Your task to perform on an android device: add a contact in the contacts app Image 0: 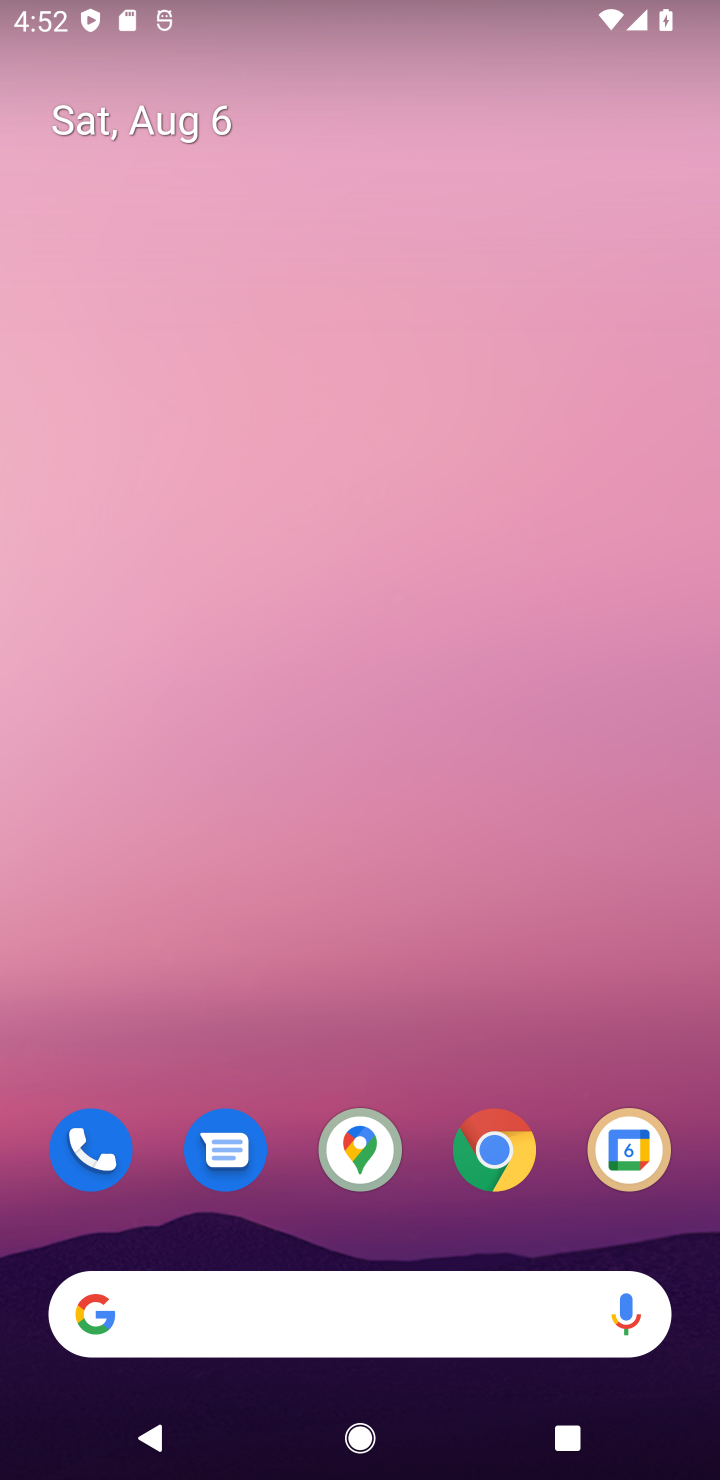
Step 0: drag from (438, 1036) to (370, 209)
Your task to perform on an android device: add a contact in the contacts app Image 1: 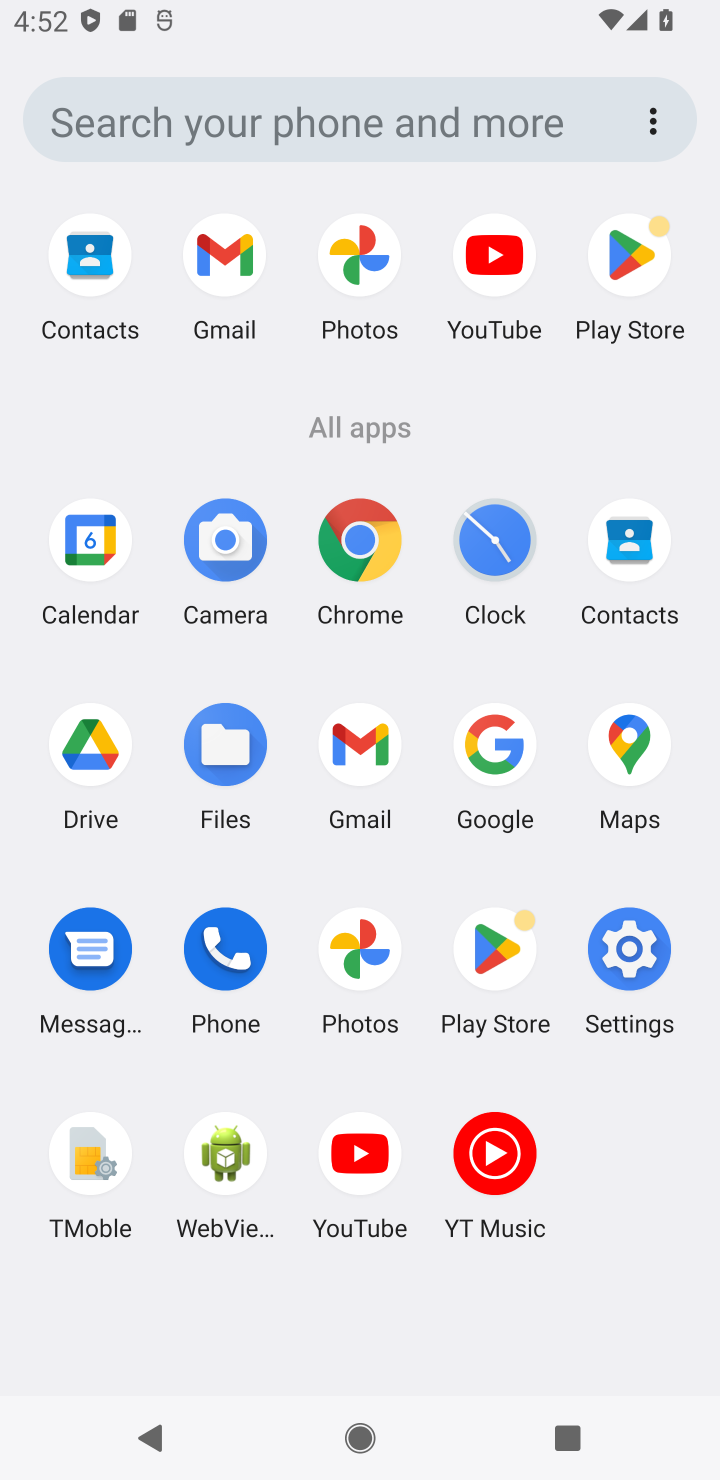
Step 1: click (610, 544)
Your task to perform on an android device: add a contact in the contacts app Image 2: 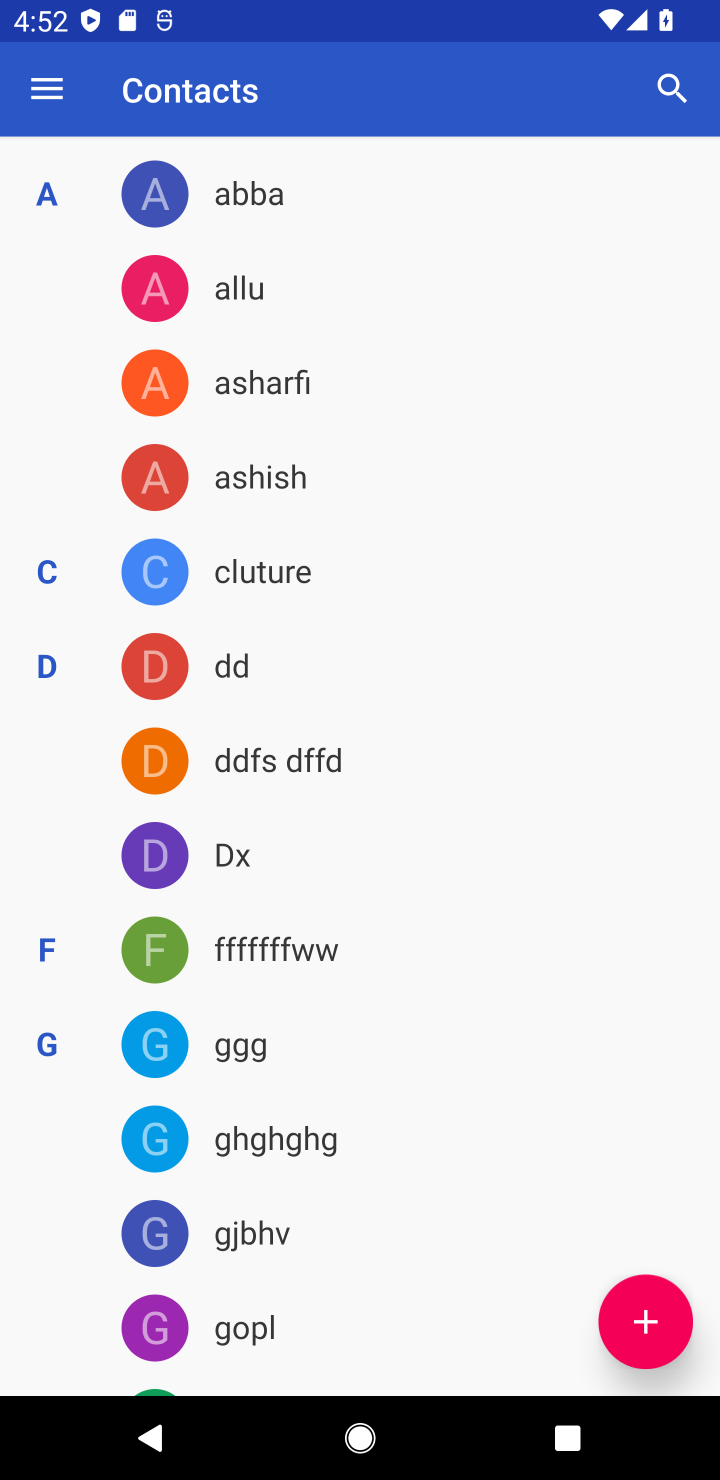
Step 2: click (641, 1323)
Your task to perform on an android device: add a contact in the contacts app Image 3: 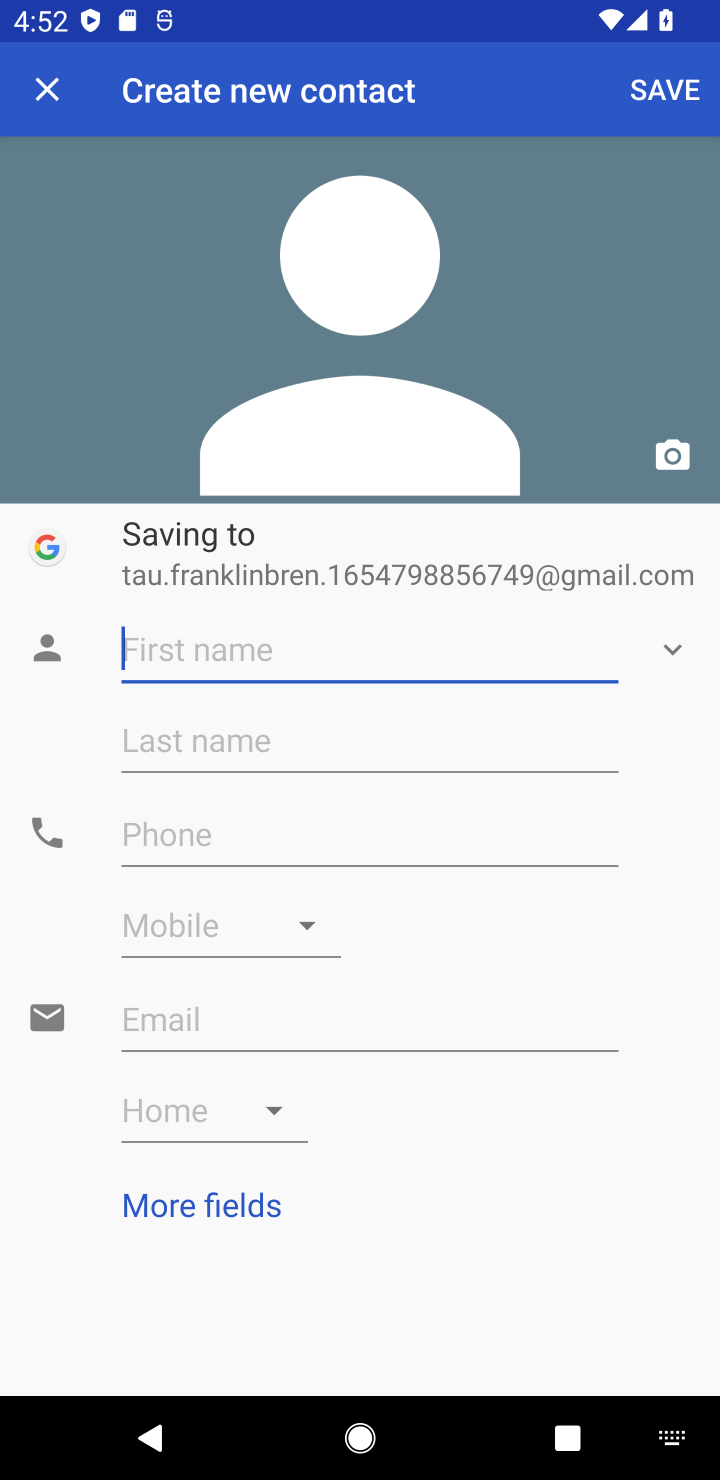
Step 3: type "cvbn"
Your task to perform on an android device: add a contact in the contacts app Image 4: 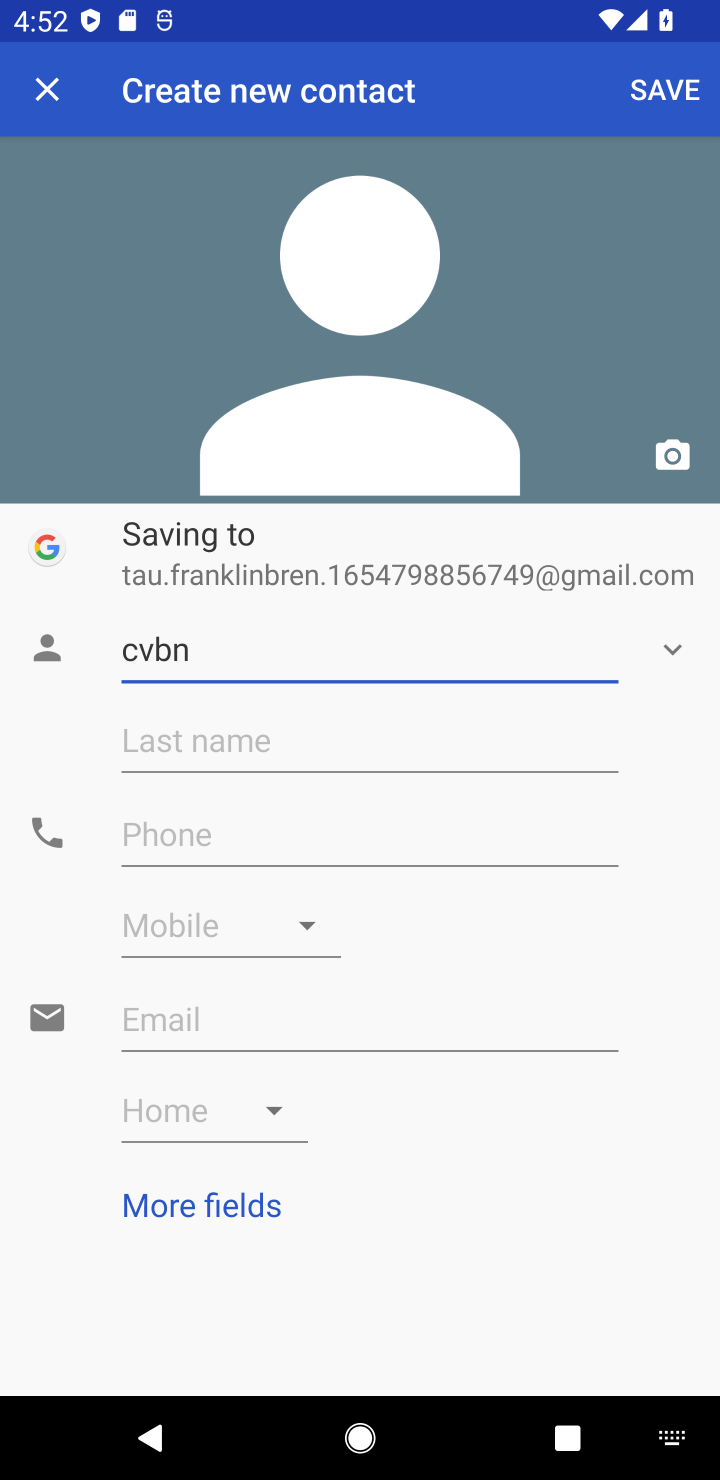
Step 4: click (367, 831)
Your task to perform on an android device: add a contact in the contacts app Image 5: 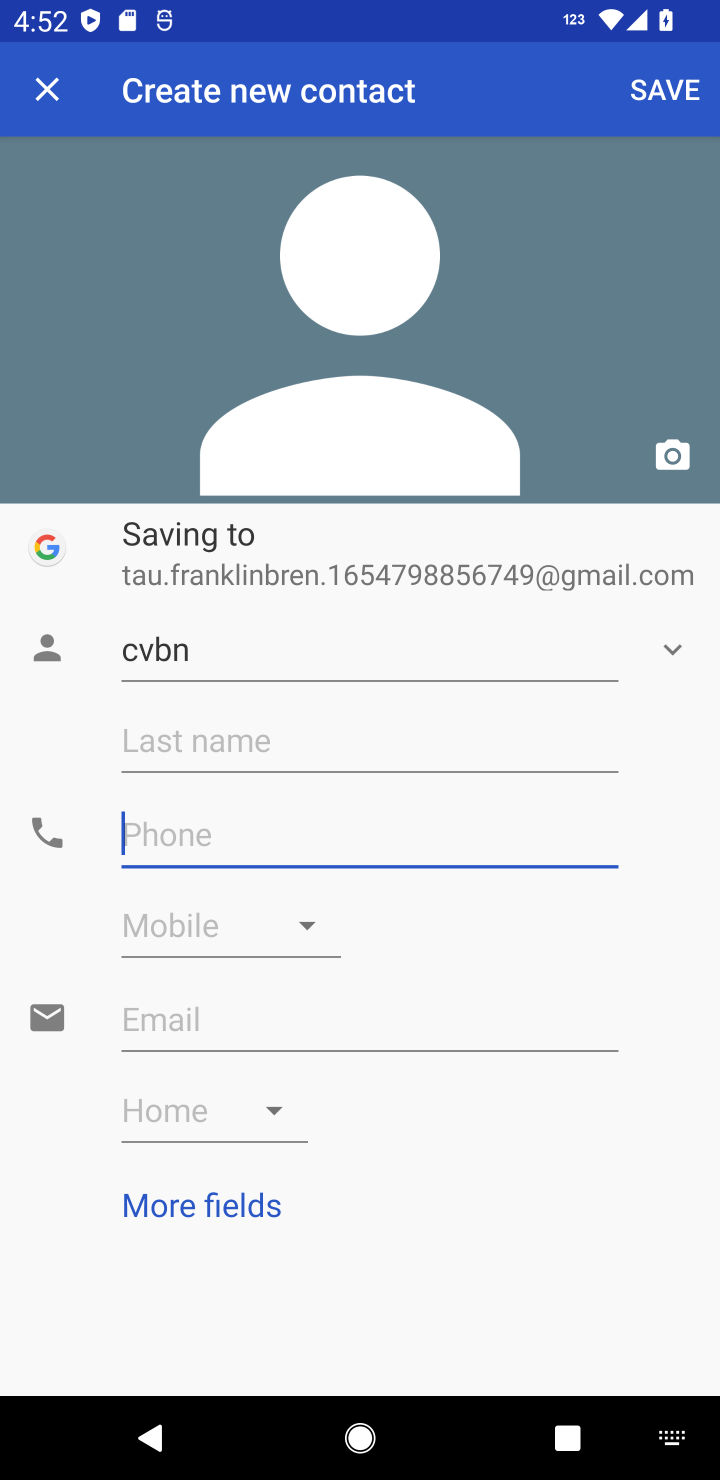
Step 5: type "5647382910"
Your task to perform on an android device: add a contact in the contacts app Image 6: 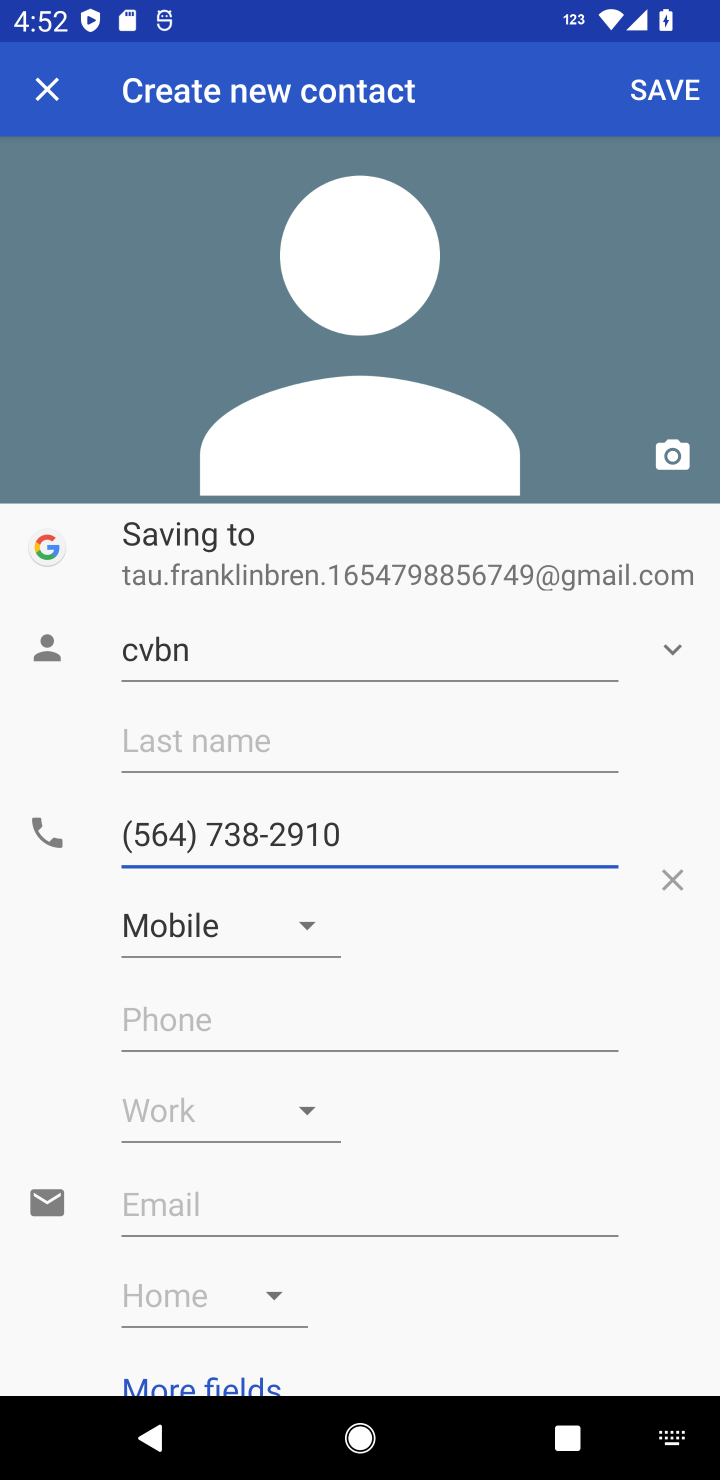
Step 6: click (640, 100)
Your task to perform on an android device: add a contact in the contacts app Image 7: 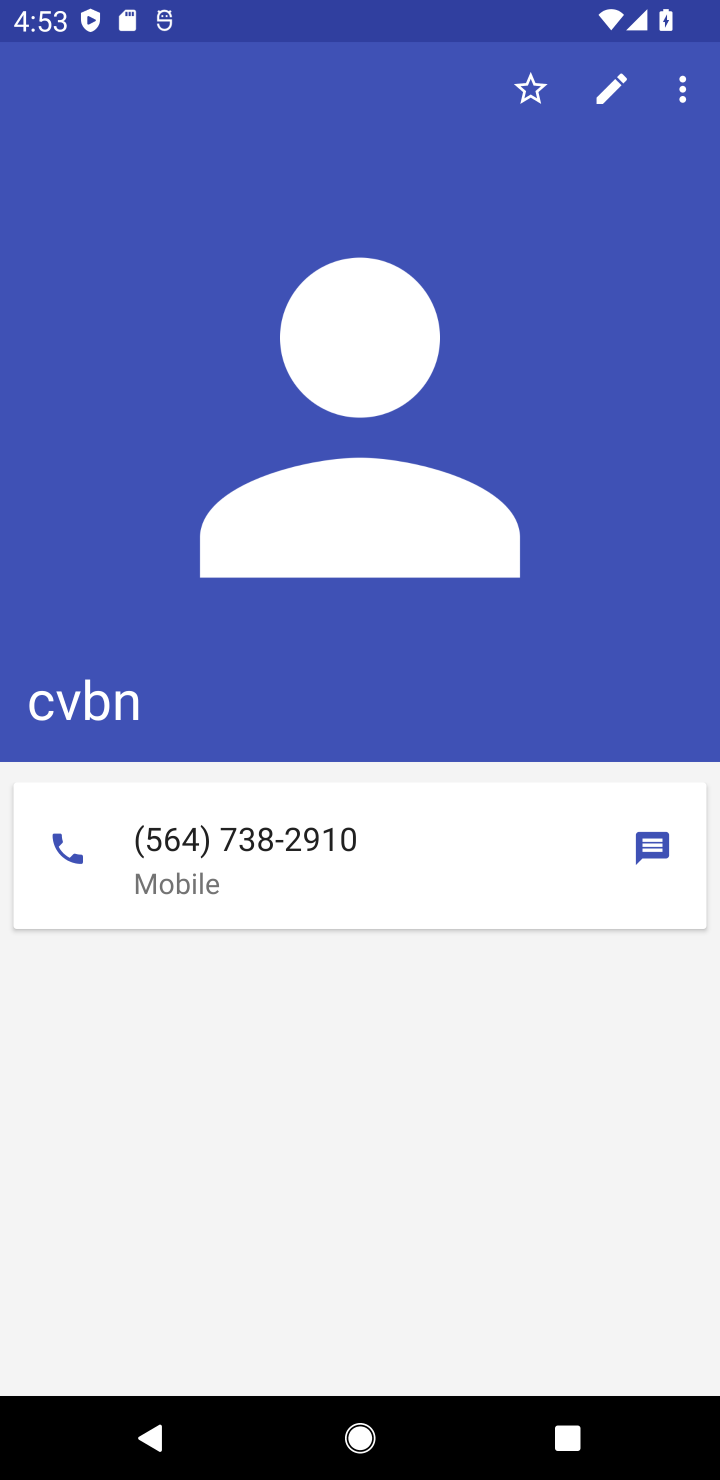
Step 7: task complete